Your task to perform on an android device: turn off picture-in-picture Image 0: 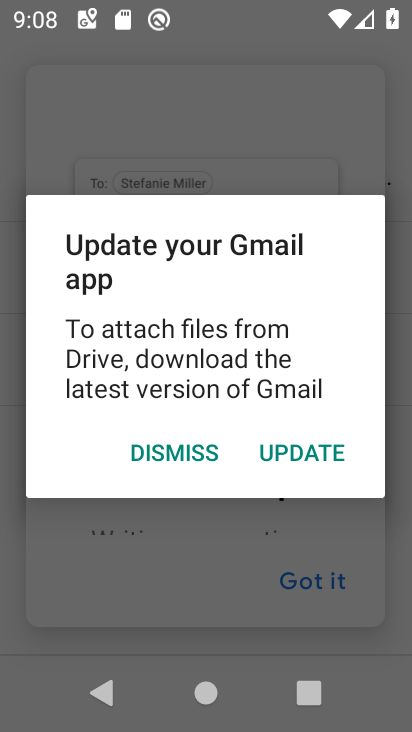
Step 0: press home button
Your task to perform on an android device: turn off picture-in-picture Image 1: 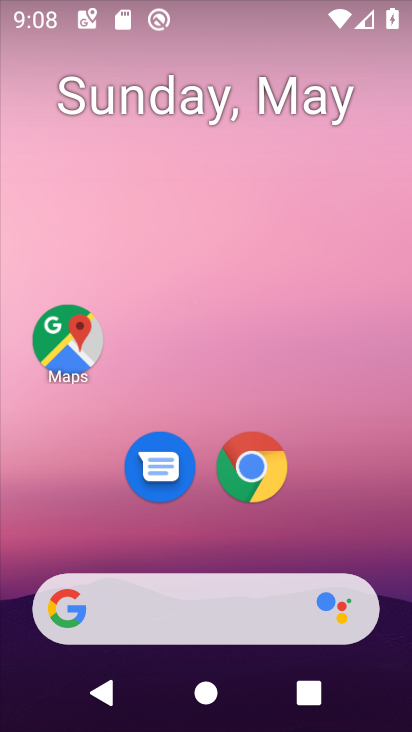
Step 1: drag from (372, 525) to (355, 149)
Your task to perform on an android device: turn off picture-in-picture Image 2: 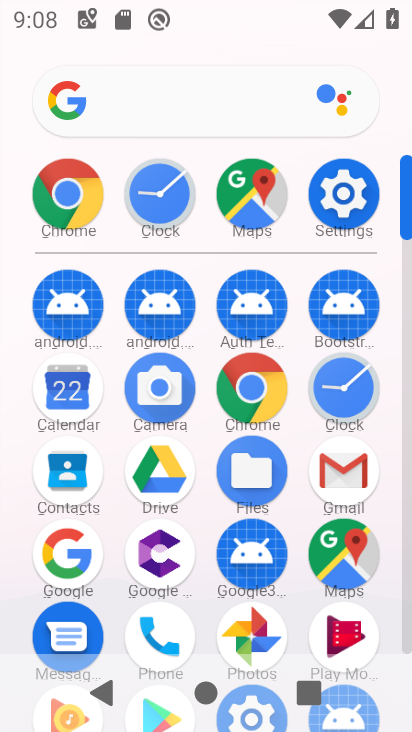
Step 2: click (367, 198)
Your task to perform on an android device: turn off picture-in-picture Image 3: 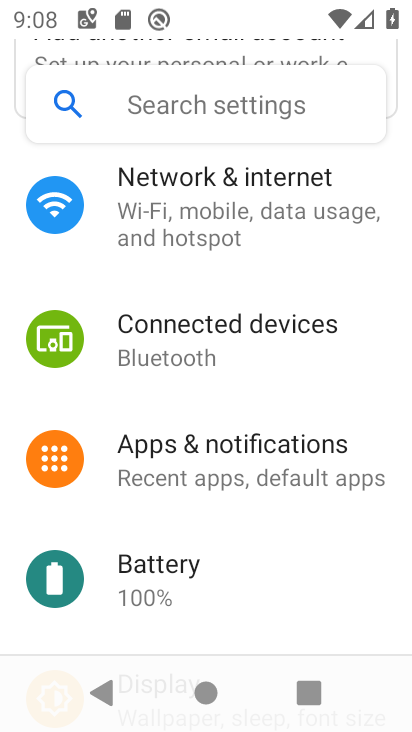
Step 3: drag from (311, 601) to (353, 163)
Your task to perform on an android device: turn off picture-in-picture Image 4: 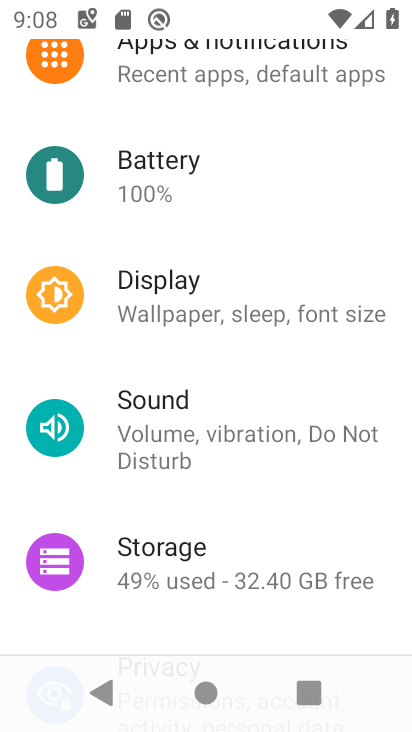
Step 4: drag from (277, 495) to (301, 148)
Your task to perform on an android device: turn off picture-in-picture Image 5: 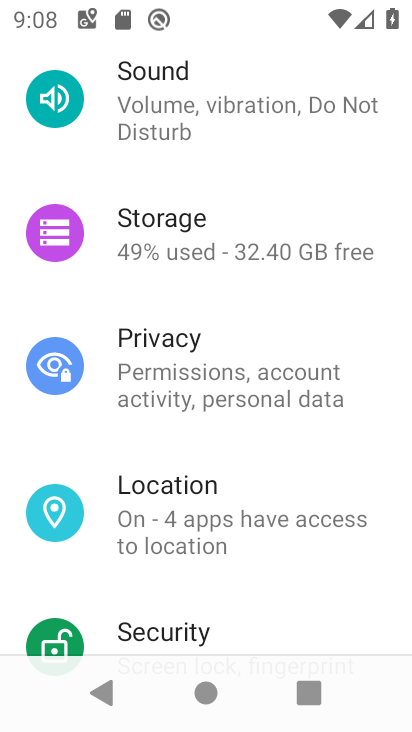
Step 5: drag from (235, 575) to (291, 186)
Your task to perform on an android device: turn off picture-in-picture Image 6: 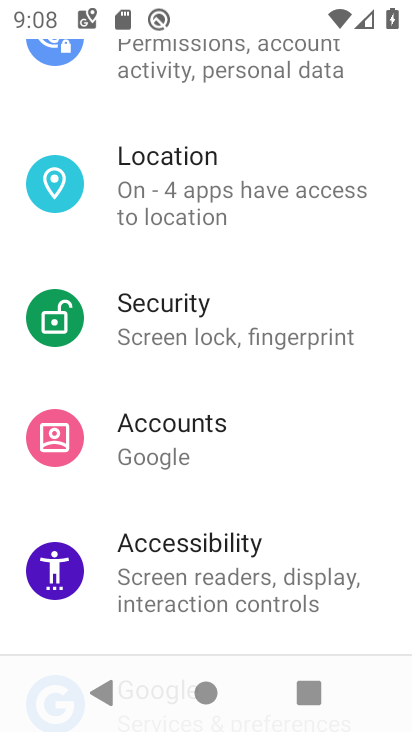
Step 6: drag from (252, 117) to (247, 567)
Your task to perform on an android device: turn off picture-in-picture Image 7: 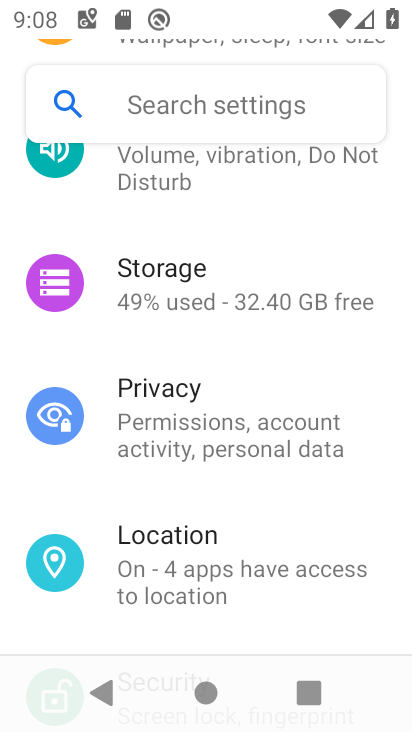
Step 7: drag from (250, 163) to (247, 587)
Your task to perform on an android device: turn off picture-in-picture Image 8: 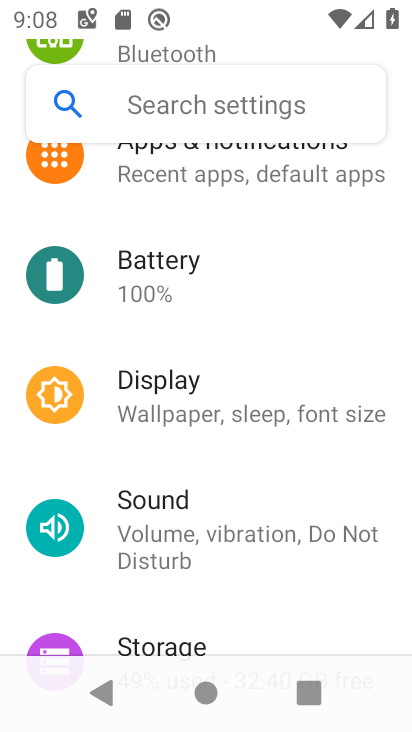
Step 8: click (238, 160)
Your task to perform on an android device: turn off picture-in-picture Image 9: 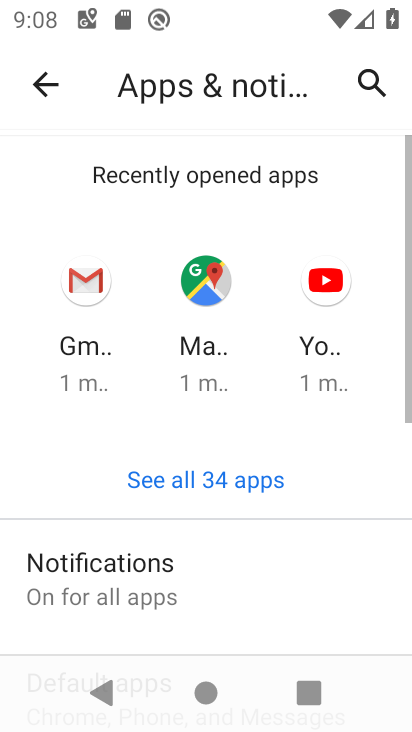
Step 9: drag from (245, 622) to (277, 144)
Your task to perform on an android device: turn off picture-in-picture Image 10: 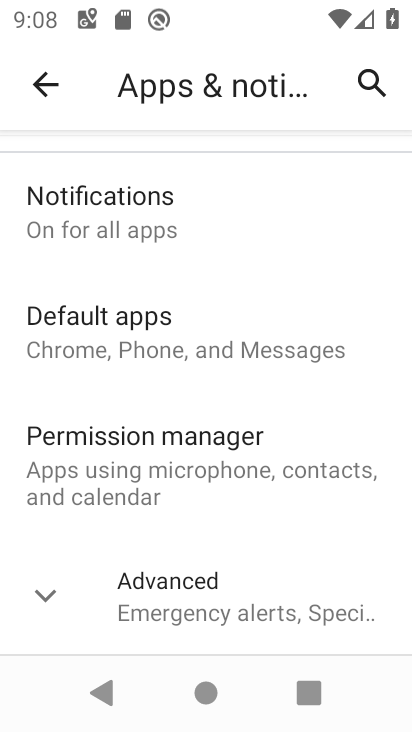
Step 10: drag from (194, 605) to (303, 196)
Your task to perform on an android device: turn off picture-in-picture Image 11: 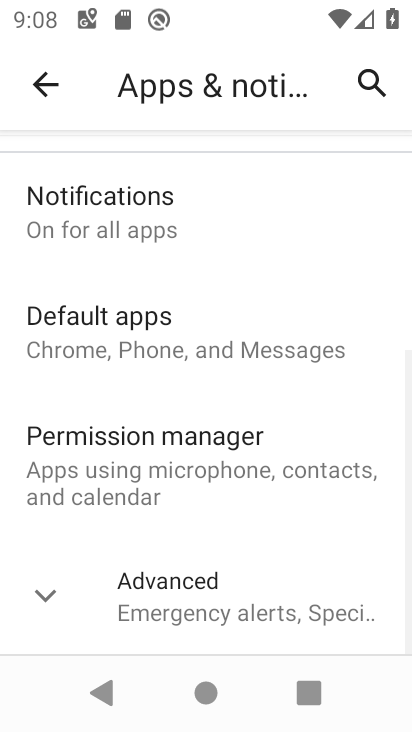
Step 11: click (227, 600)
Your task to perform on an android device: turn off picture-in-picture Image 12: 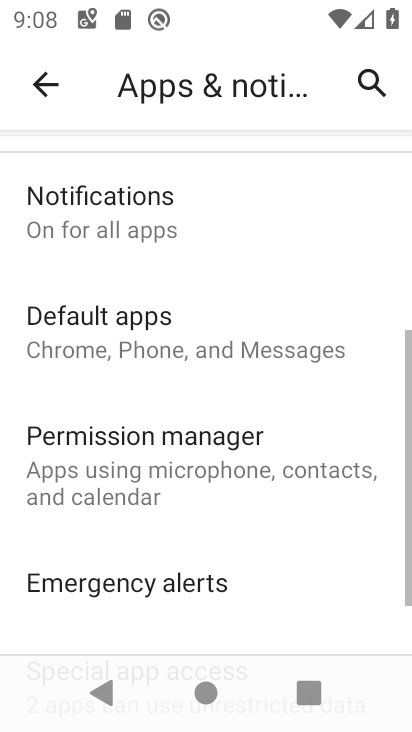
Step 12: drag from (233, 373) to (302, 132)
Your task to perform on an android device: turn off picture-in-picture Image 13: 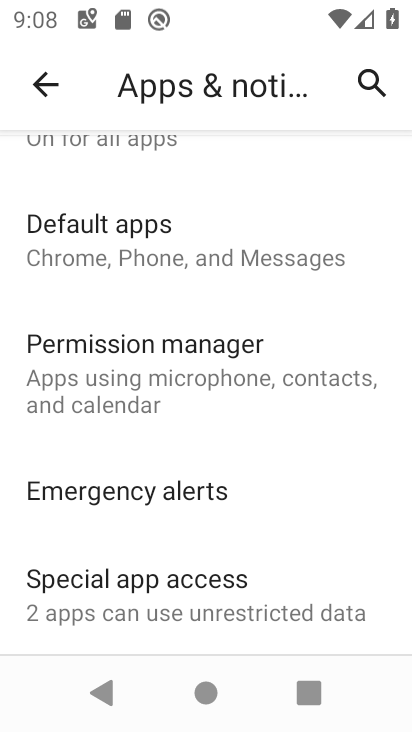
Step 13: drag from (208, 559) to (264, 191)
Your task to perform on an android device: turn off picture-in-picture Image 14: 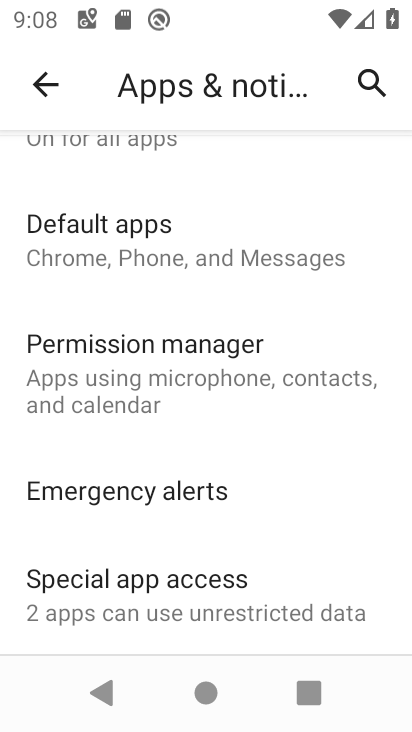
Step 14: click (178, 602)
Your task to perform on an android device: turn off picture-in-picture Image 15: 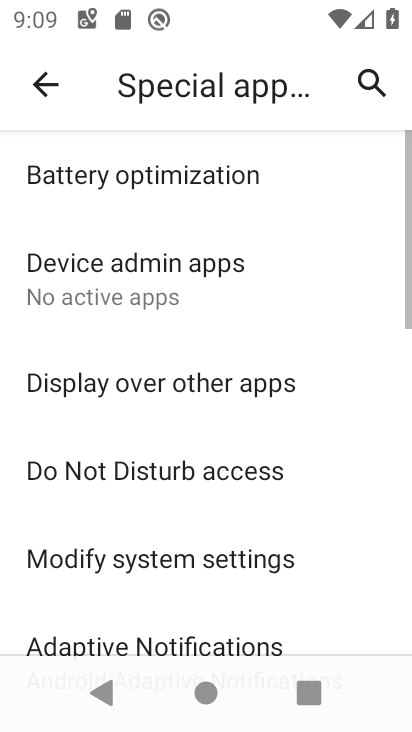
Step 15: drag from (171, 585) to (220, 227)
Your task to perform on an android device: turn off picture-in-picture Image 16: 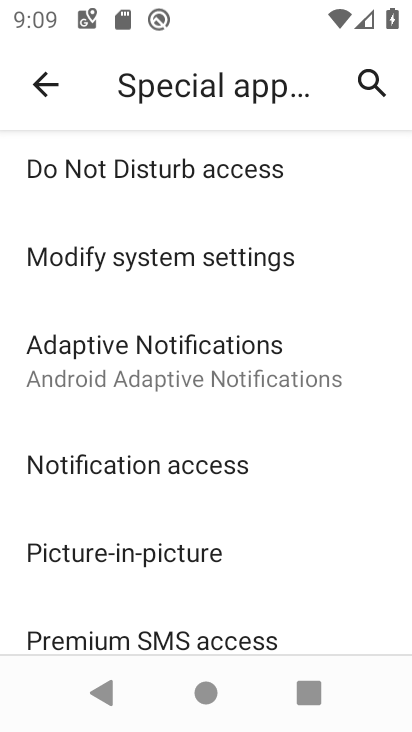
Step 16: click (123, 552)
Your task to perform on an android device: turn off picture-in-picture Image 17: 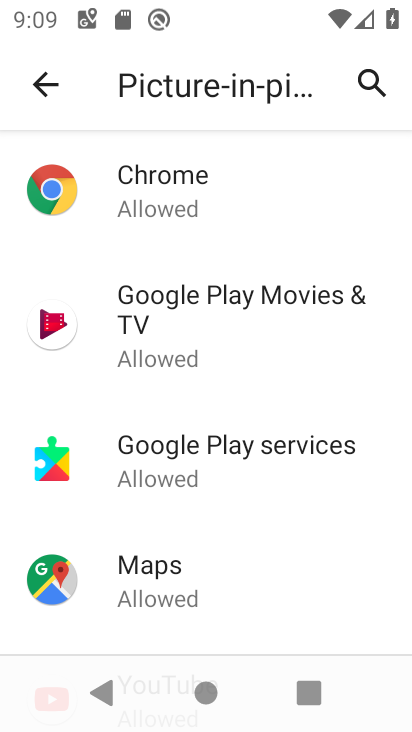
Step 17: drag from (242, 541) to (288, 150)
Your task to perform on an android device: turn off picture-in-picture Image 18: 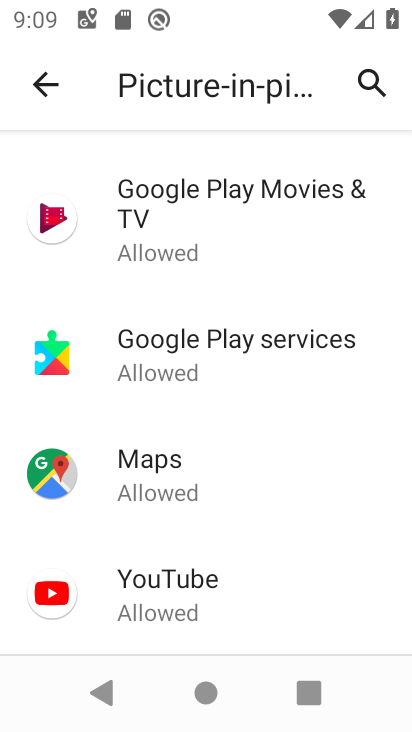
Step 18: click (182, 200)
Your task to perform on an android device: turn off picture-in-picture Image 19: 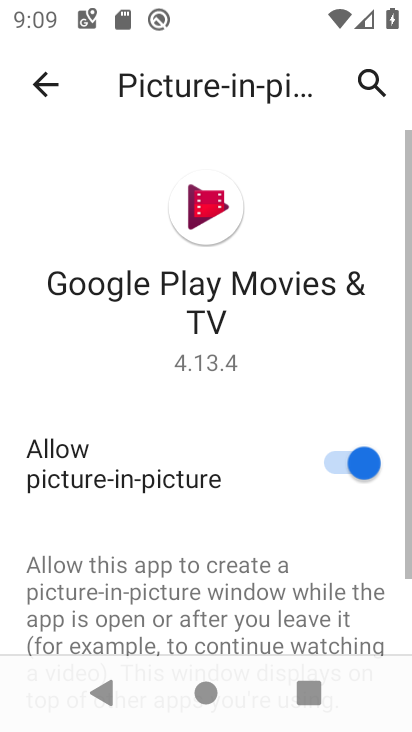
Step 19: click (324, 469)
Your task to perform on an android device: turn off picture-in-picture Image 20: 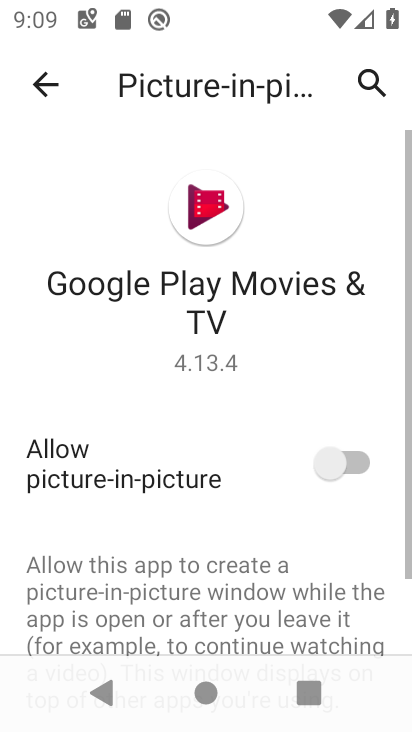
Step 20: task complete